Your task to perform on an android device: Open my contact list Image 0: 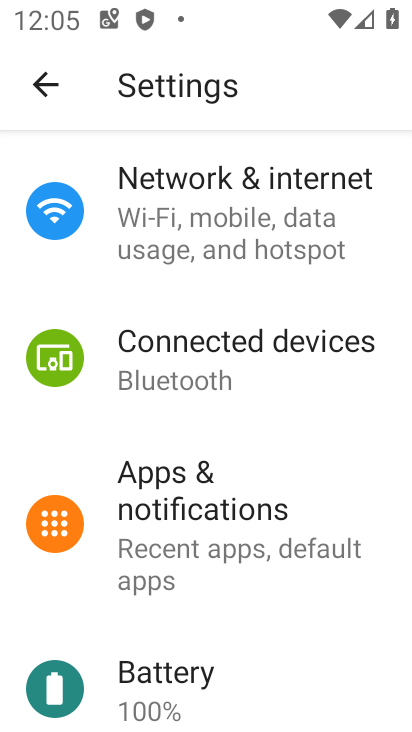
Step 0: press home button
Your task to perform on an android device: Open my contact list Image 1: 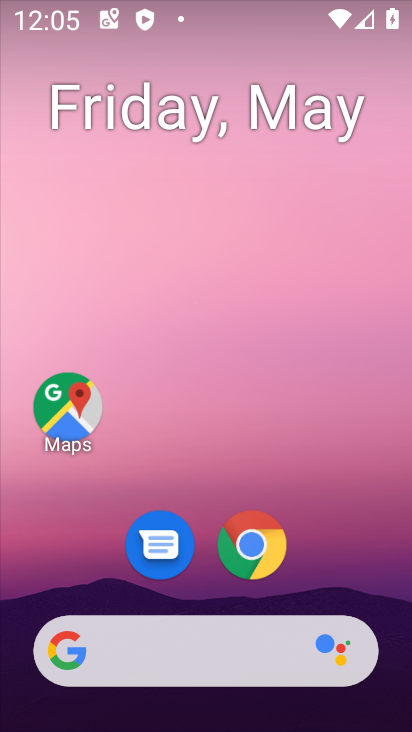
Step 1: drag from (219, 577) to (178, 247)
Your task to perform on an android device: Open my contact list Image 2: 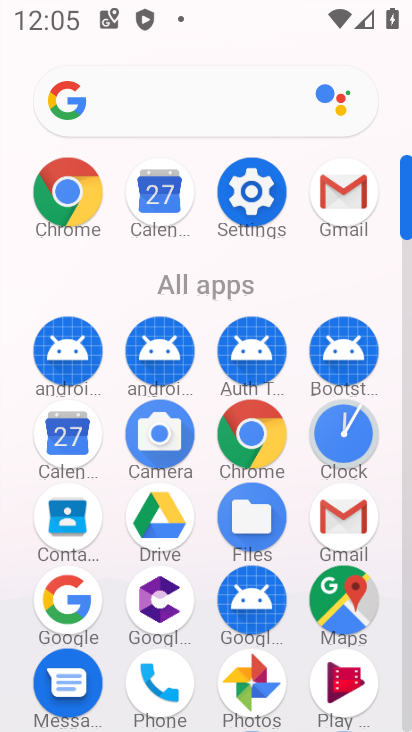
Step 2: click (163, 664)
Your task to perform on an android device: Open my contact list Image 3: 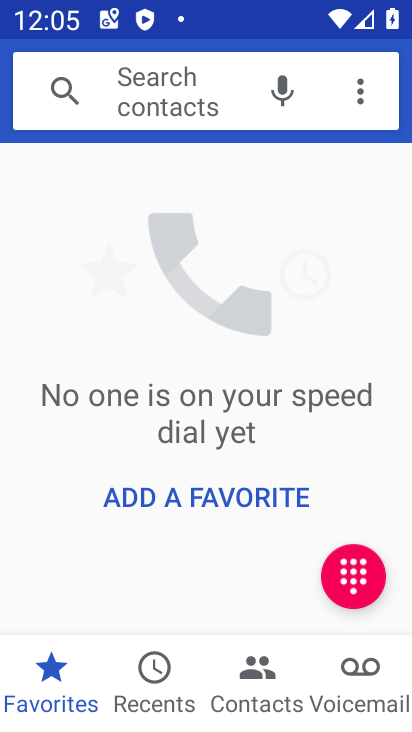
Step 3: click (249, 675)
Your task to perform on an android device: Open my contact list Image 4: 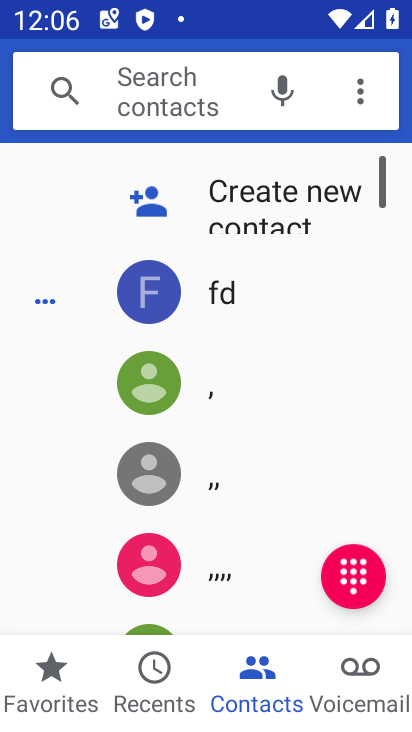
Step 4: task complete